Your task to perform on an android device: open app "The Home Depot" (install if not already installed) and enter user name: "taproot@icloud.com" and password: "executions" Image 0: 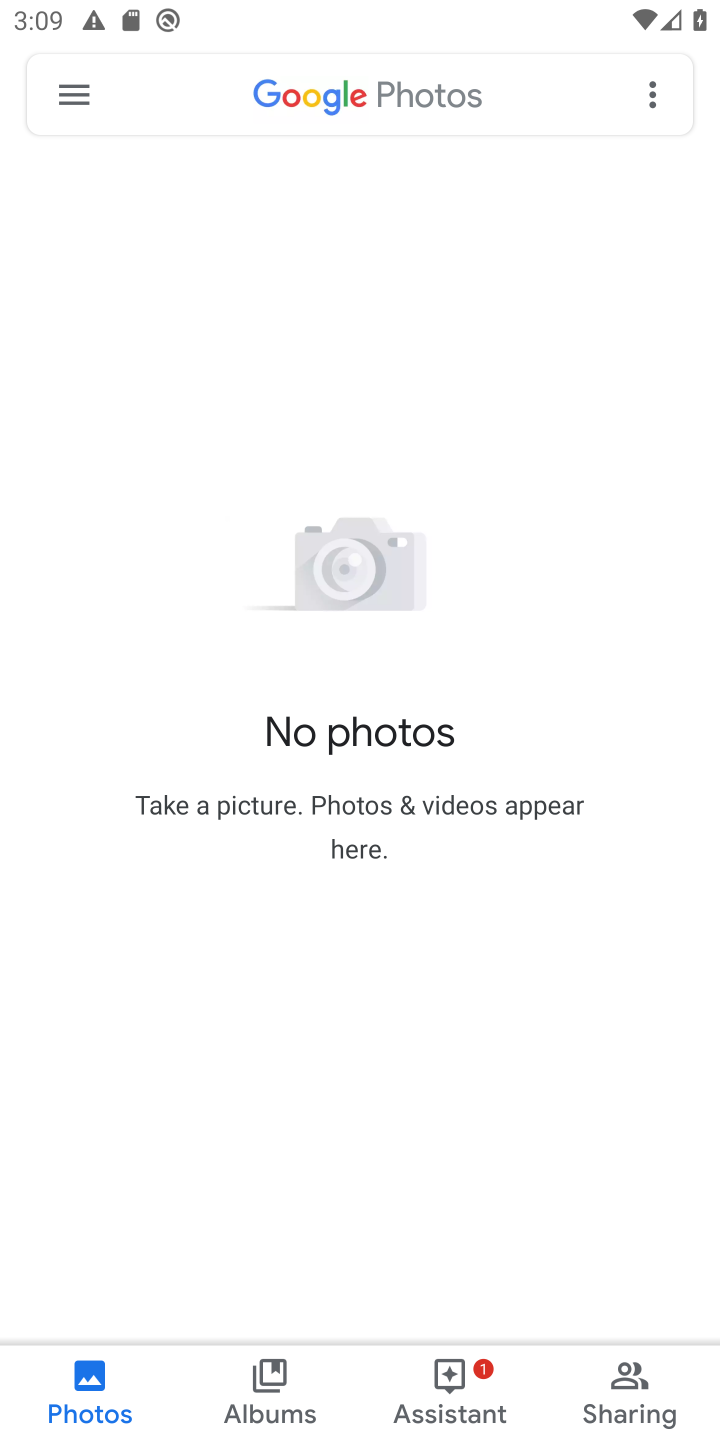
Step 0: press home button
Your task to perform on an android device: open app "The Home Depot" (install if not already installed) and enter user name: "taproot@icloud.com" and password: "executions" Image 1: 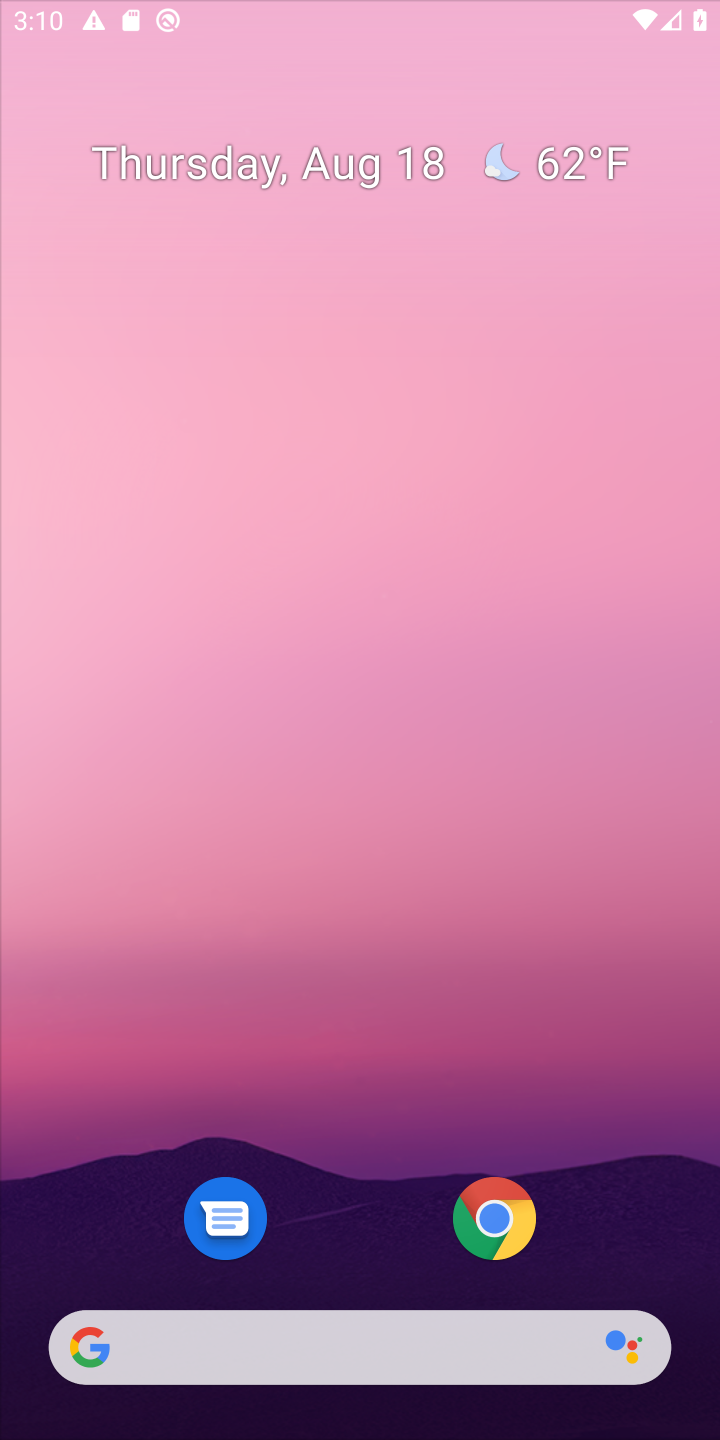
Step 1: drag from (344, 1124) to (308, 308)
Your task to perform on an android device: open app "The Home Depot" (install if not already installed) and enter user name: "taproot@icloud.com" and password: "executions" Image 2: 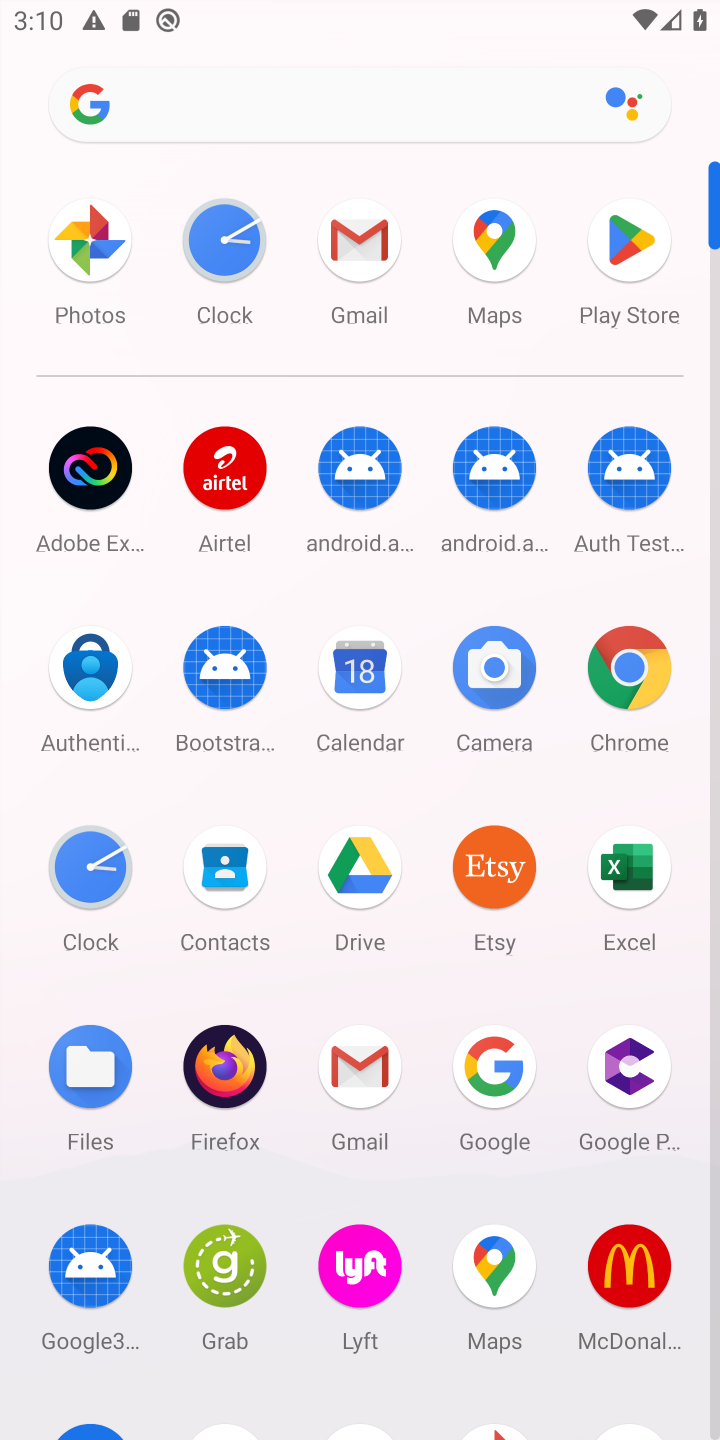
Step 2: drag from (303, 974) to (303, 455)
Your task to perform on an android device: open app "The Home Depot" (install if not already installed) and enter user name: "taproot@icloud.com" and password: "executions" Image 3: 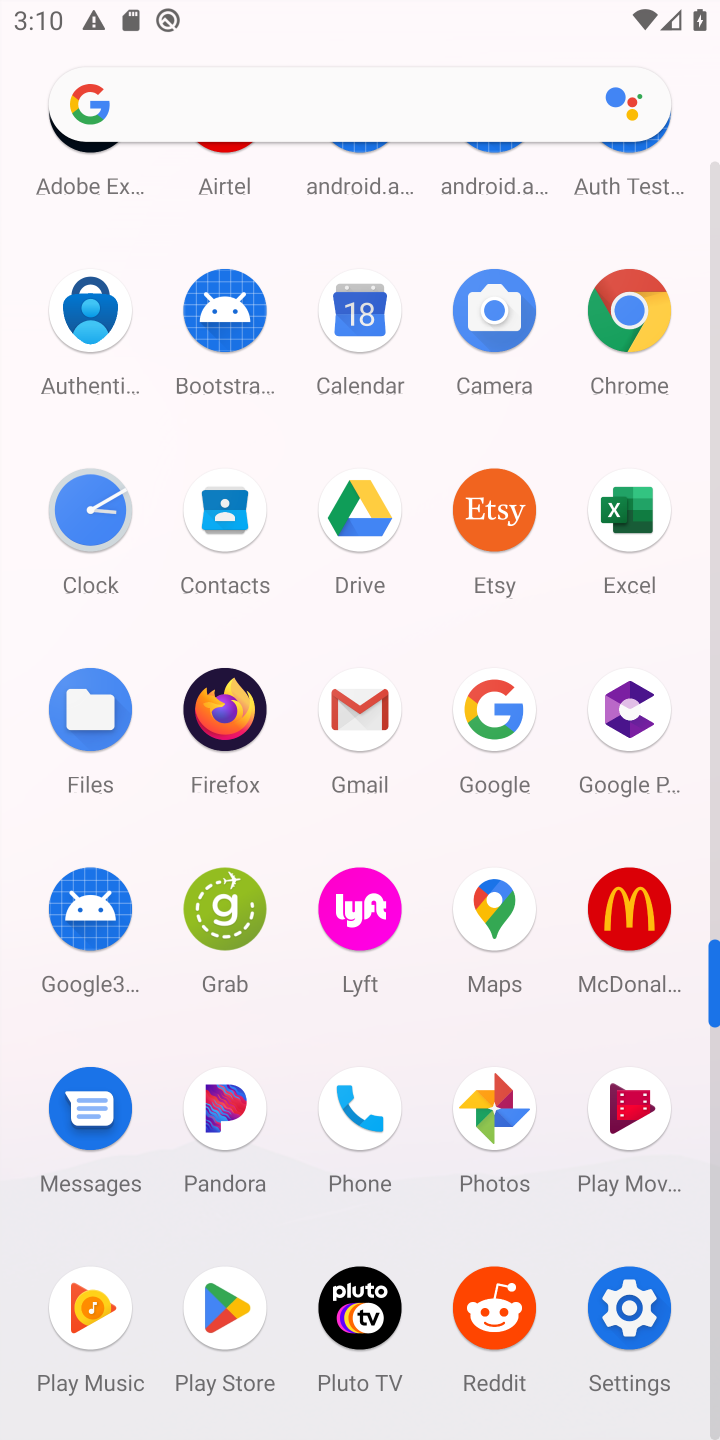
Step 3: click (235, 1289)
Your task to perform on an android device: open app "The Home Depot" (install if not already installed) and enter user name: "taproot@icloud.com" and password: "executions" Image 4: 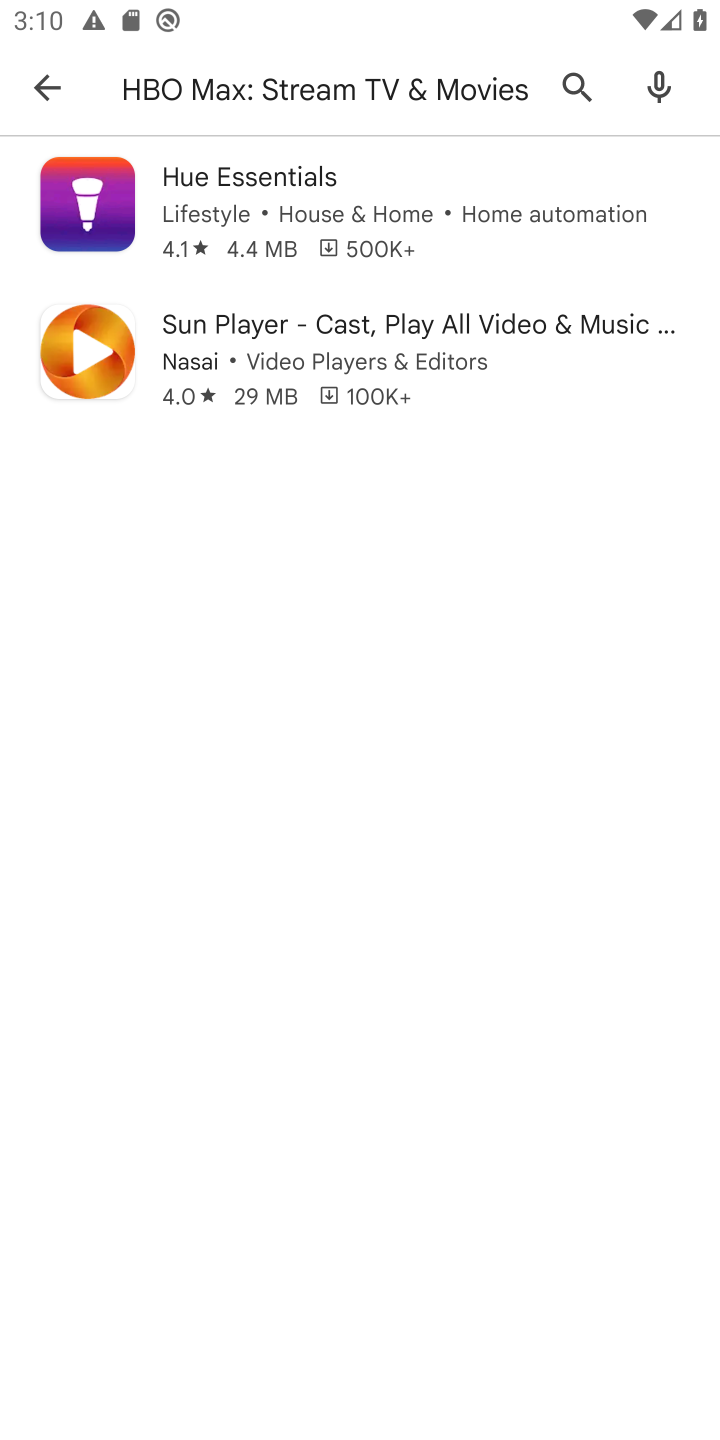
Step 4: click (574, 83)
Your task to perform on an android device: open app "The Home Depot" (install if not already installed) and enter user name: "taproot@icloud.com" and password: "executions" Image 5: 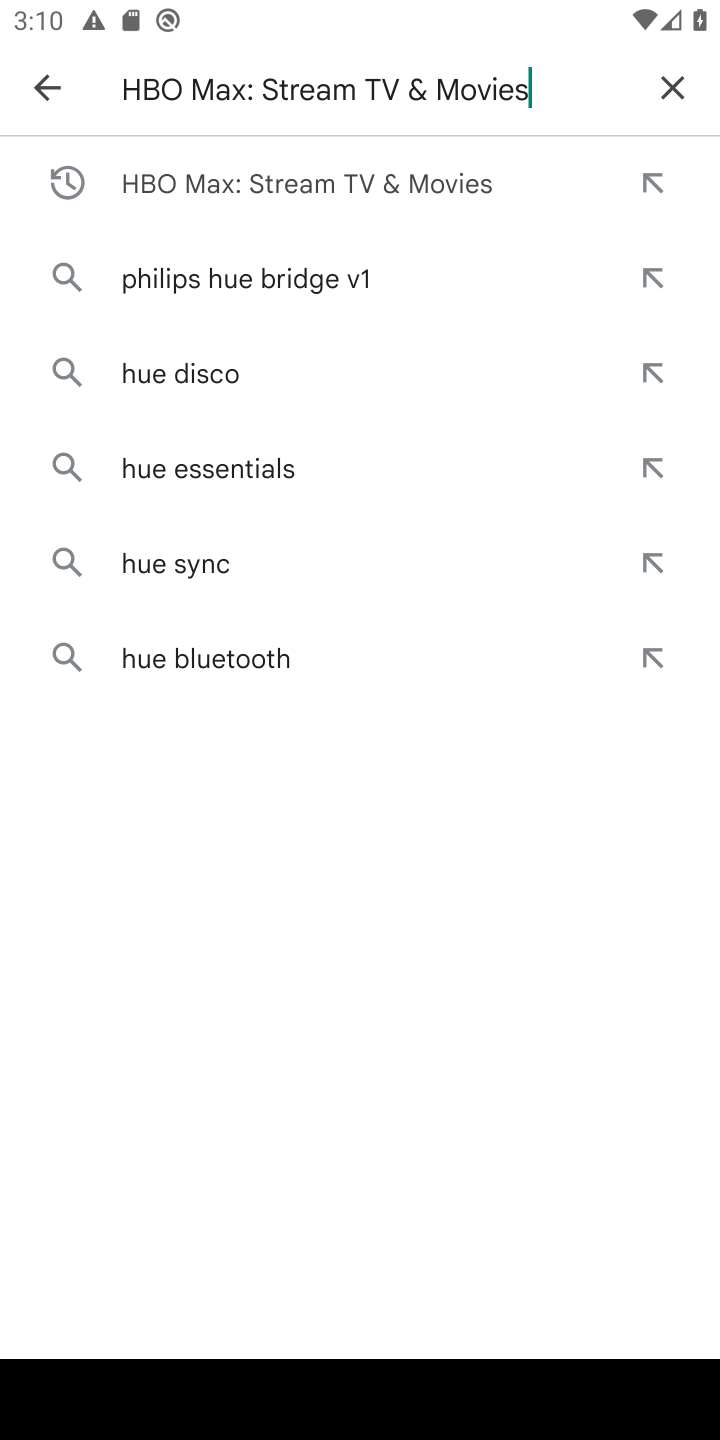
Step 5: click (670, 91)
Your task to perform on an android device: open app "The Home Depot" (install if not already installed) and enter user name: "taproot@icloud.com" and password: "executions" Image 6: 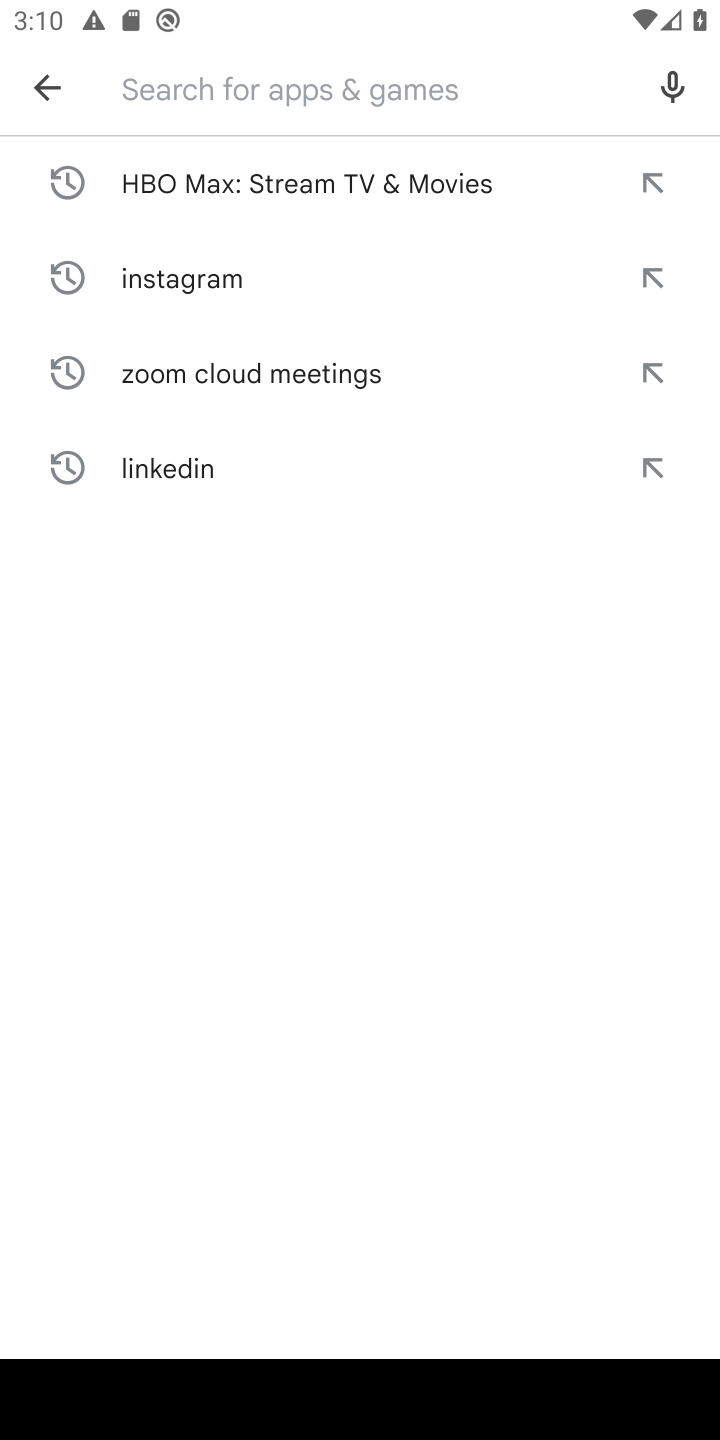
Step 6: type "The Home Depot"
Your task to perform on an android device: open app "The Home Depot" (install if not already installed) and enter user name: "taproot@icloud.com" and password: "executions" Image 7: 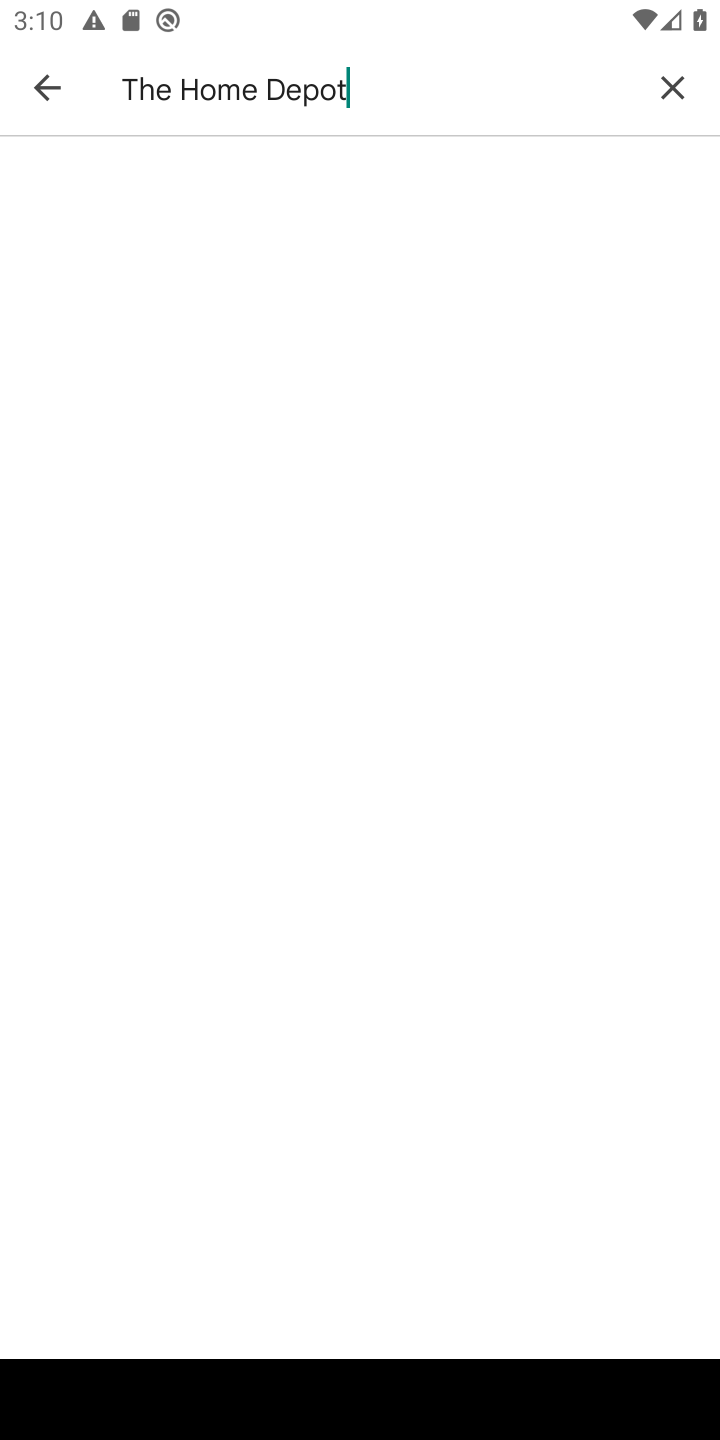
Step 7: type ""
Your task to perform on an android device: open app "The Home Depot" (install if not already installed) and enter user name: "taproot@icloud.com" and password: "executions" Image 8: 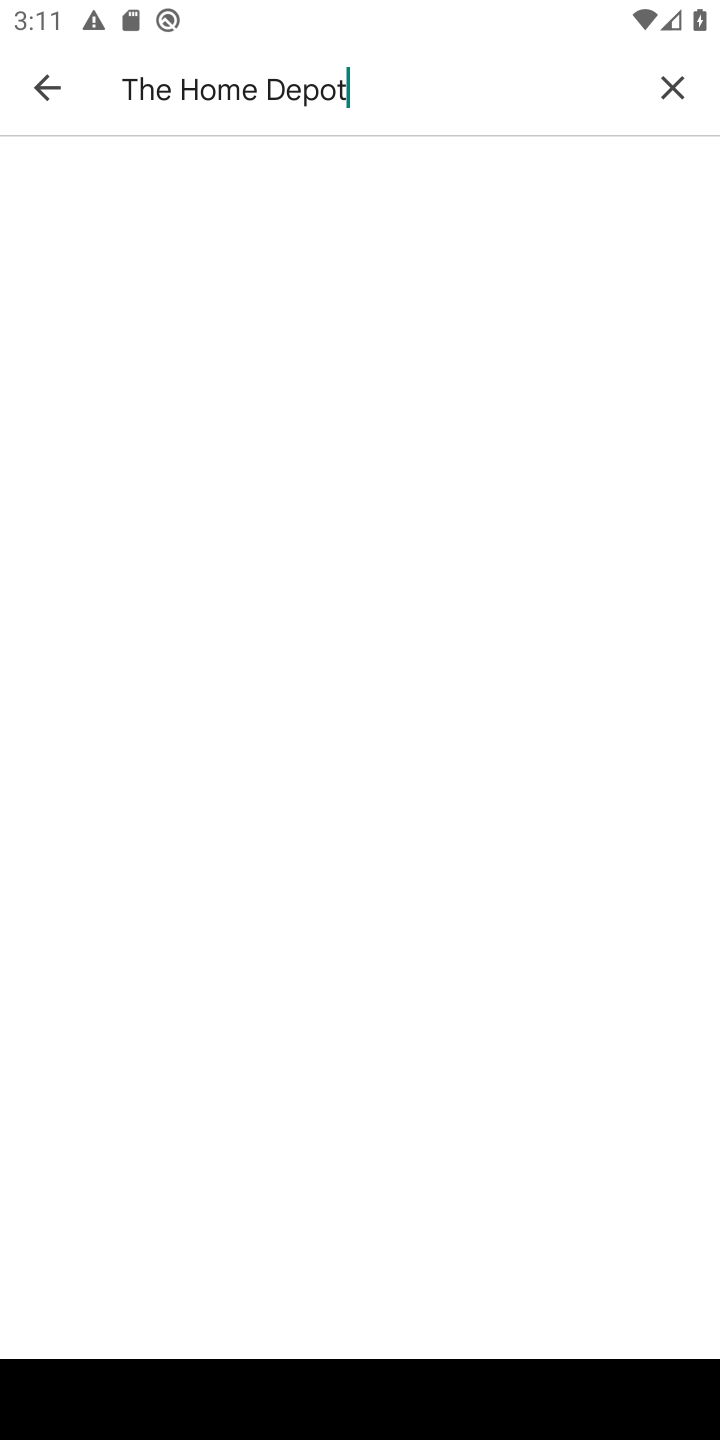
Step 8: task complete